Your task to perform on an android device: Open Google Maps and go to "Timeline" Image 0: 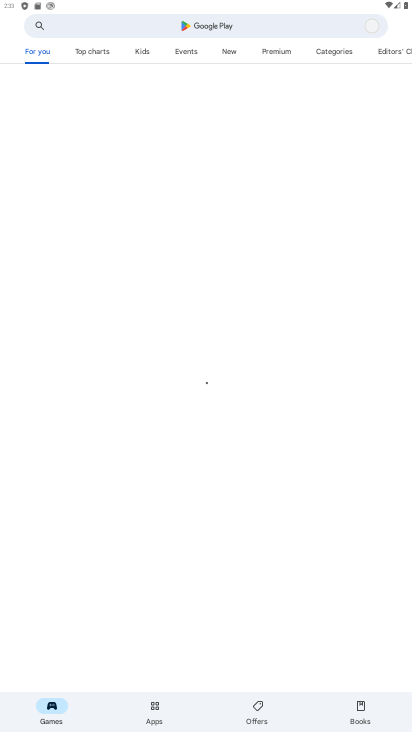
Step 0: press back button
Your task to perform on an android device: Open Google Maps and go to "Timeline" Image 1: 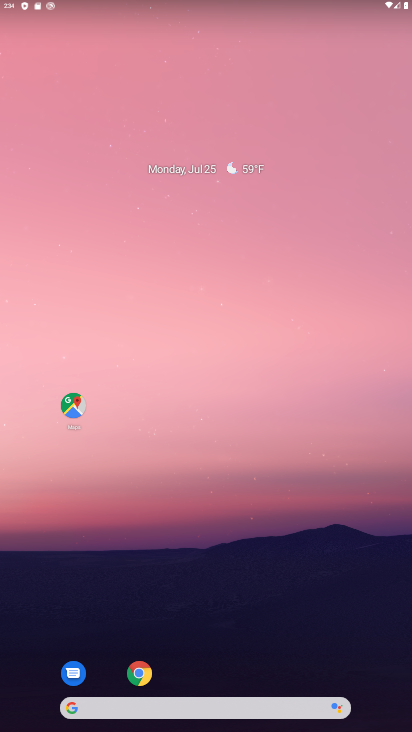
Step 1: click (270, 166)
Your task to perform on an android device: Open Google Maps and go to "Timeline" Image 2: 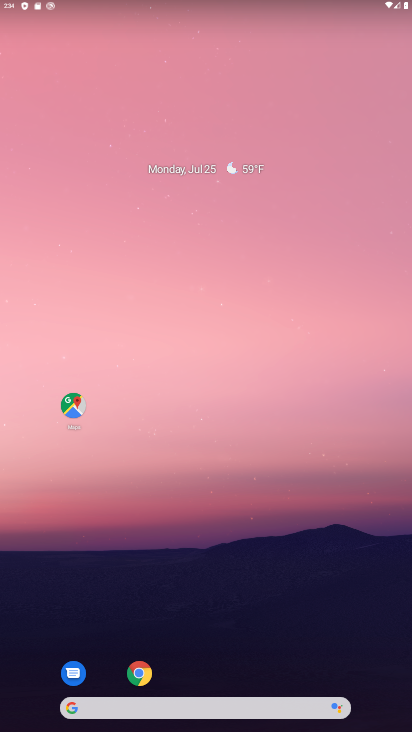
Step 2: click (70, 412)
Your task to perform on an android device: Open Google Maps and go to "Timeline" Image 3: 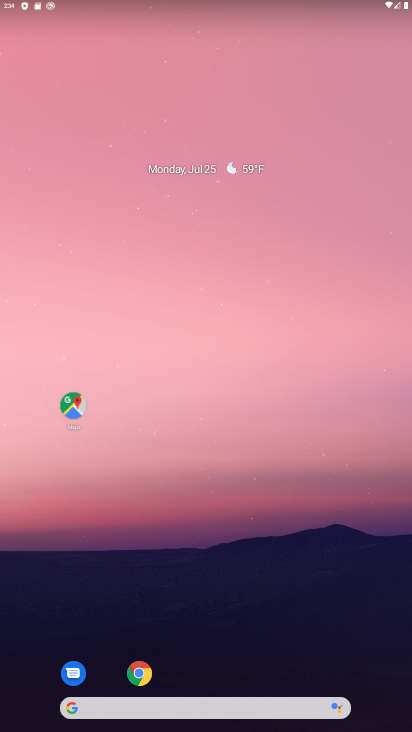
Step 3: click (70, 412)
Your task to perform on an android device: Open Google Maps and go to "Timeline" Image 4: 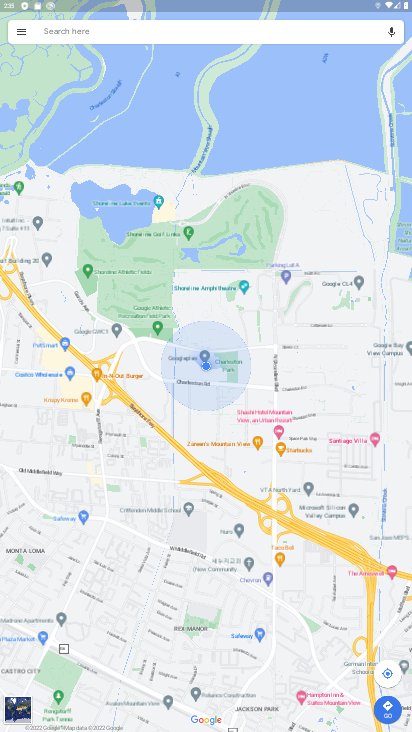
Step 4: click (17, 27)
Your task to perform on an android device: Open Google Maps and go to "Timeline" Image 5: 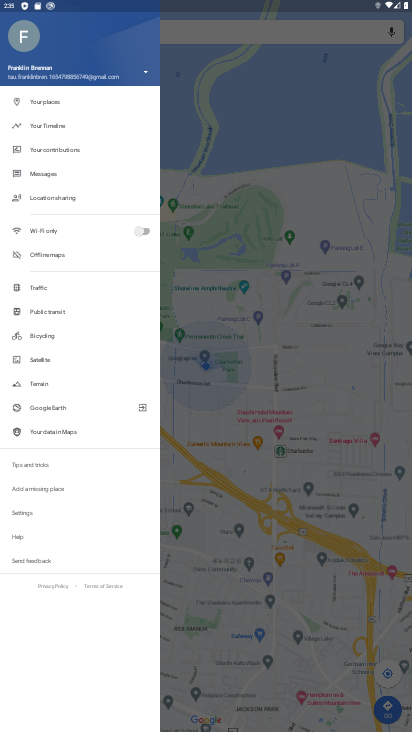
Step 5: click (55, 122)
Your task to perform on an android device: Open Google Maps and go to "Timeline" Image 6: 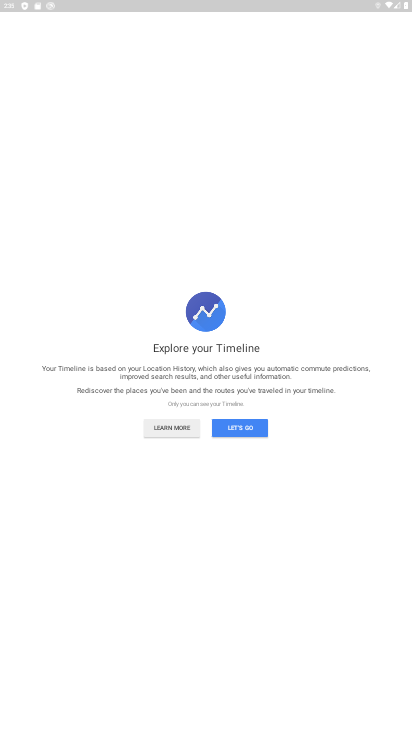
Step 6: click (217, 434)
Your task to perform on an android device: Open Google Maps and go to "Timeline" Image 7: 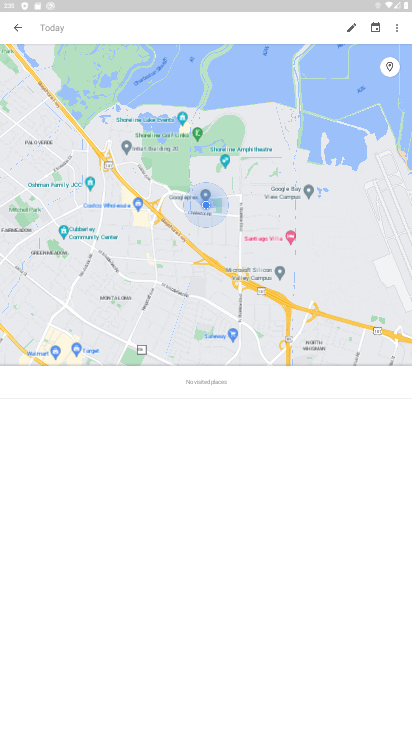
Step 7: task complete